Your task to perform on an android device: toggle notification dots Image 0: 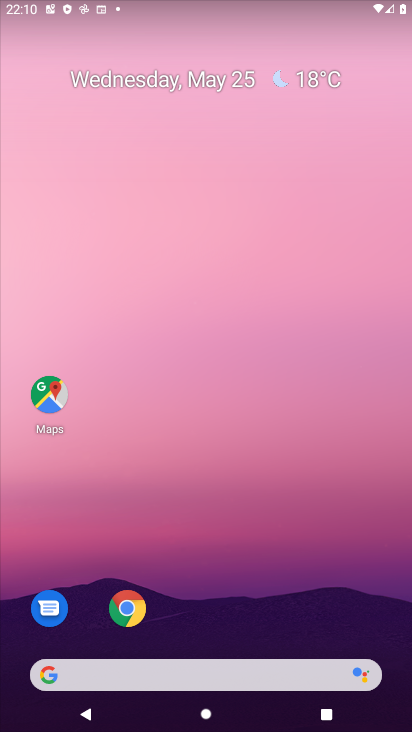
Step 0: drag from (271, 517) to (262, 77)
Your task to perform on an android device: toggle notification dots Image 1: 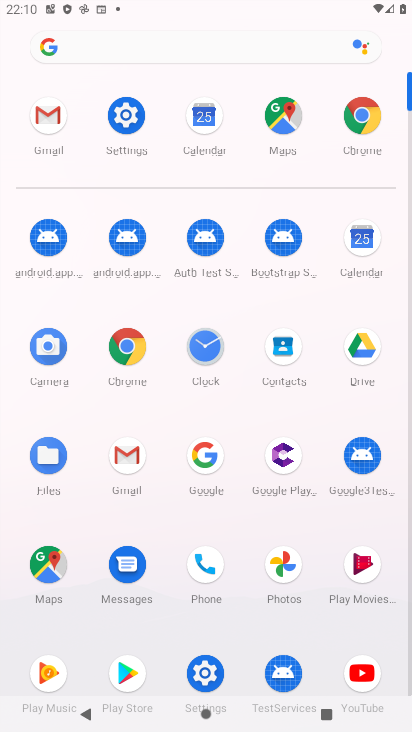
Step 1: click (139, 106)
Your task to perform on an android device: toggle notification dots Image 2: 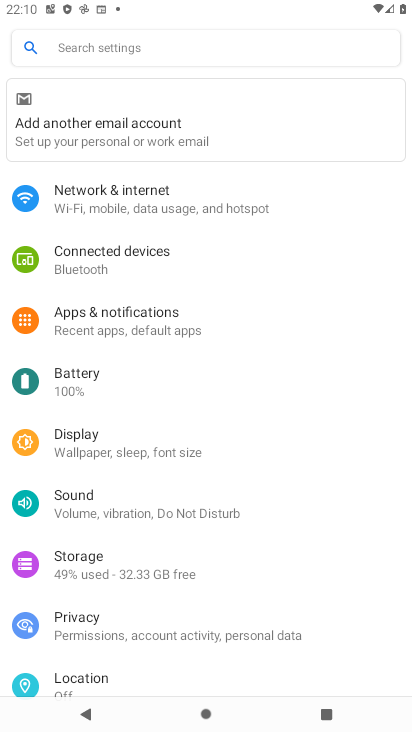
Step 2: click (183, 333)
Your task to perform on an android device: toggle notification dots Image 3: 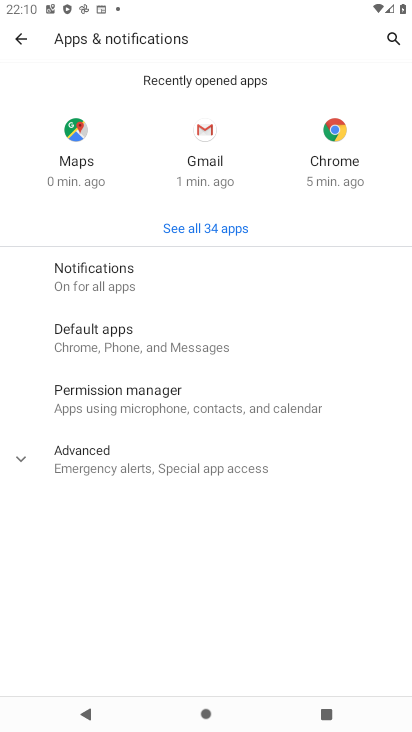
Step 3: click (151, 287)
Your task to perform on an android device: toggle notification dots Image 4: 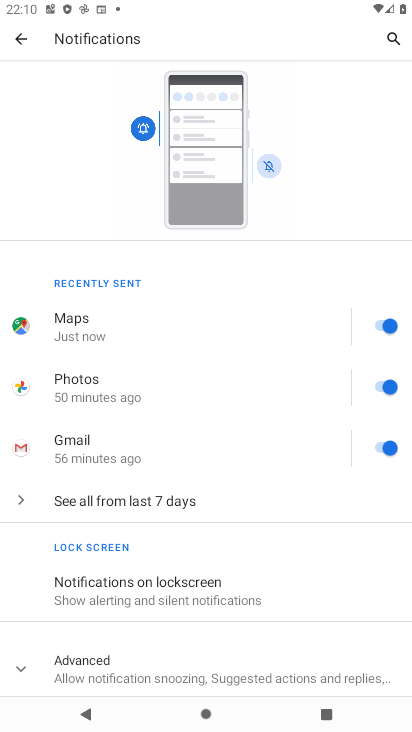
Step 4: drag from (194, 594) to (244, 210)
Your task to perform on an android device: toggle notification dots Image 5: 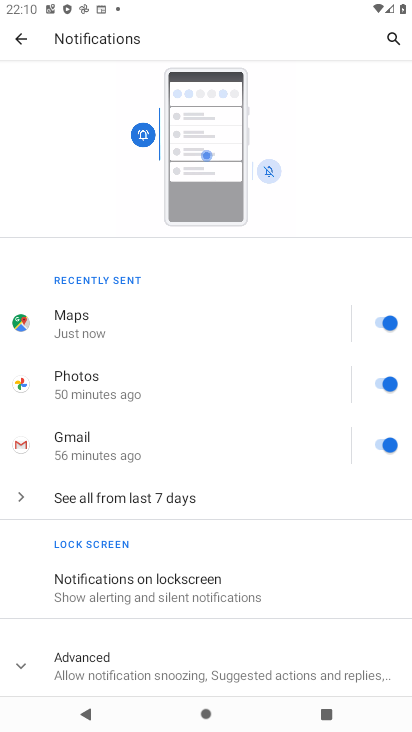
Step 5: click (228, 645)
Your task to perform on an android device: toggle notification dots Image 6: 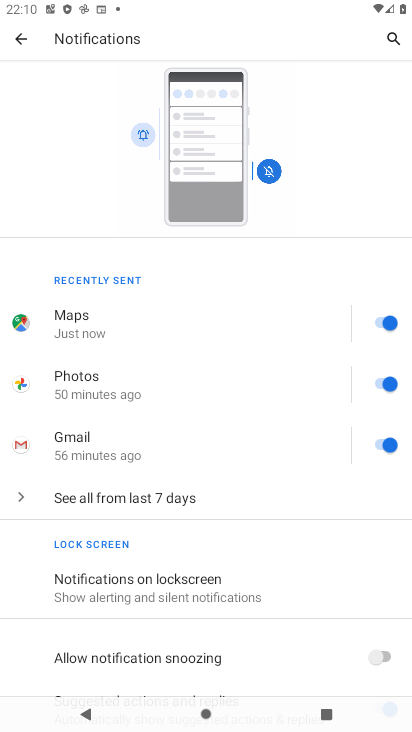
Step 6: drag from (239, 614) to (229, 238)
Your task to perform on an android device: toggle notification dots Image 7: 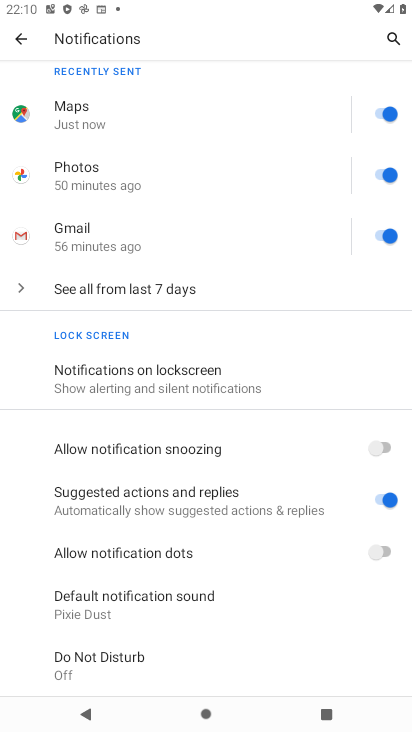
Step 7: click (374, 554)
Your task to perform on an android device: toggle notification dots Image 8: 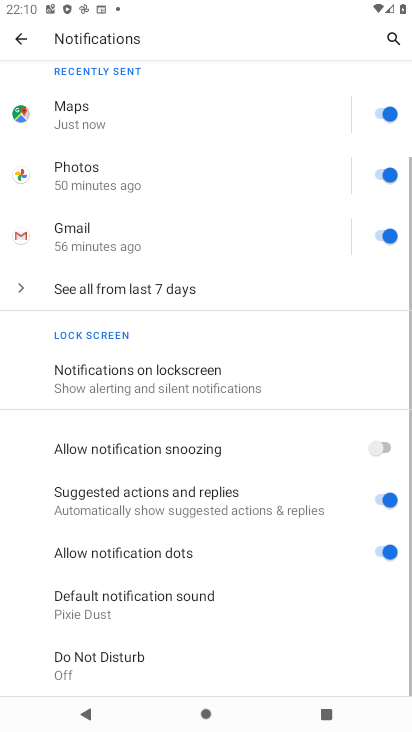
Step 8: task complete